Your task to perform on an android device: manage bookmarks in the chrome app Image 0: 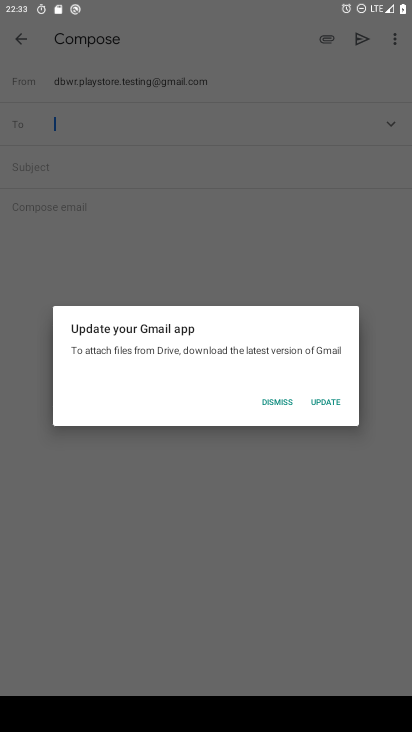
Step 0: press home button
Your task to perform on an android device: manage bookmarks in the chrome app Image 1: 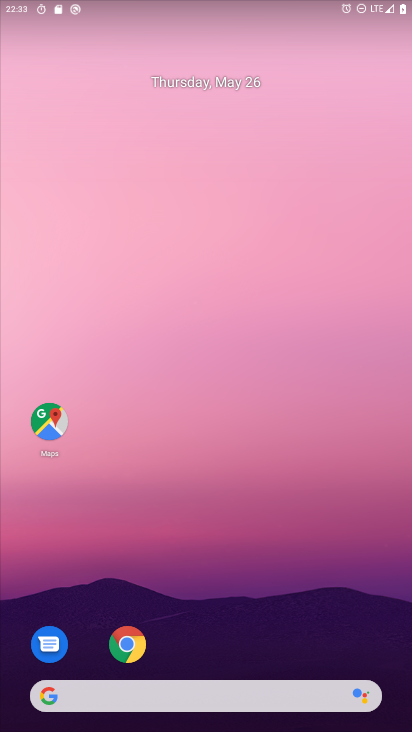
Step 1: drag from (186, 665) to (196, 281)
Your task to perform on an android device: manage bookmarks in the chrome app Image 2: 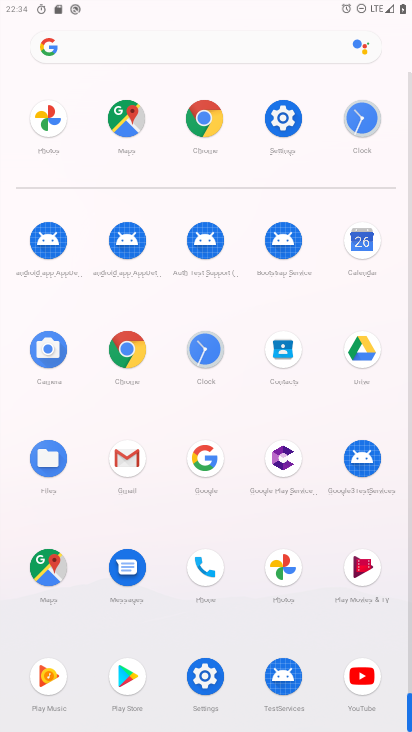
Step 2: click (122, 342)
Your task to perform on an android device: manage bookmarks in the chrome app Image 3: 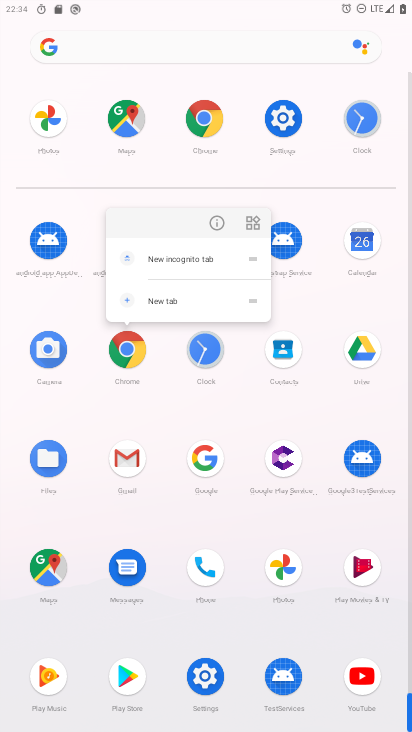
Step 3: click (220, 224)
Your task to perform on an android device: manage bookmarks in the chrome app Image 4: 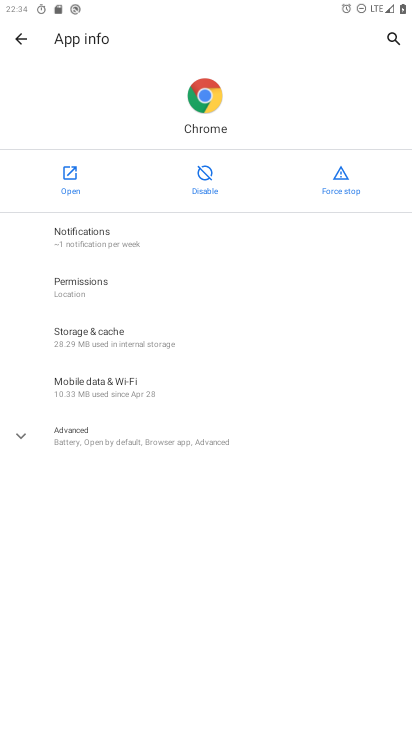
Step 4: click (38, 171)
Your task to perform on an android device: manage bookmarks in the chrome app Image 5: 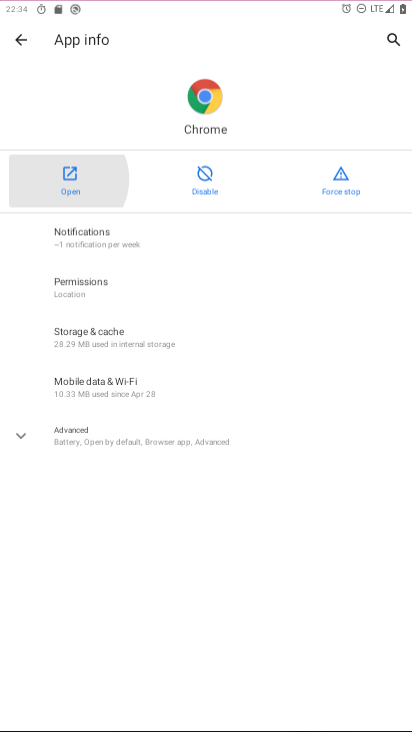
Step 5: click (51, 176)
Your task to perform on an android device: manage bookmarks in the chrome app Image 6: 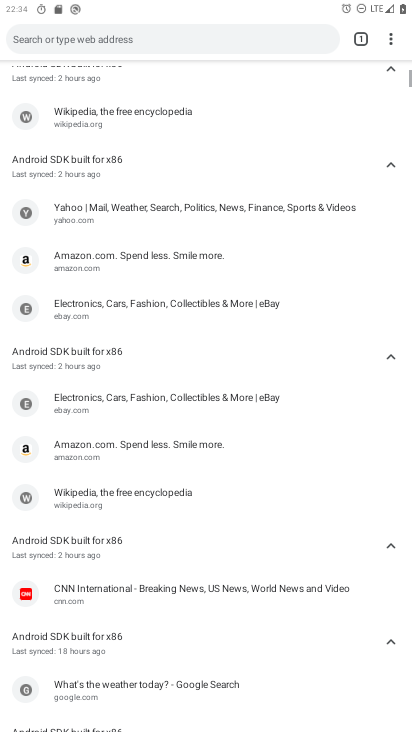
Step 6: drag from (394, 40) to (275, 158)
Your task to perform on an android device: manage bookmarks in the chrome app Image 7: 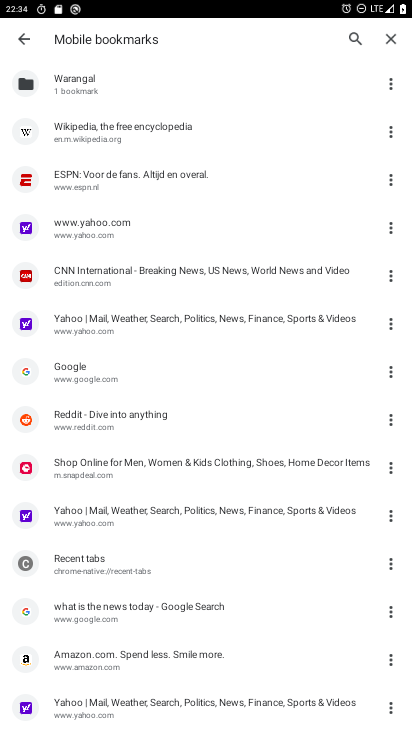
Step 7: drag from (134, 667) to (211, 437)
Your task to perform on an android device: manage bookmarks in the chrome app Image 8: 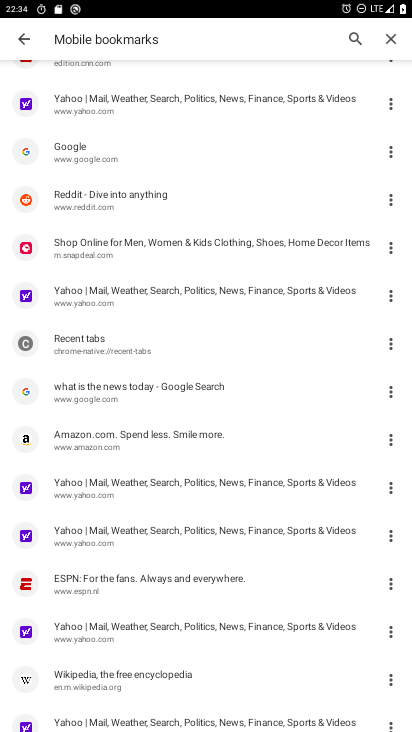
Step 8: drag from (181, 265) to (277, 706)
Your task to perform on an android device: manage bookmarks in the chrome app Image 9: 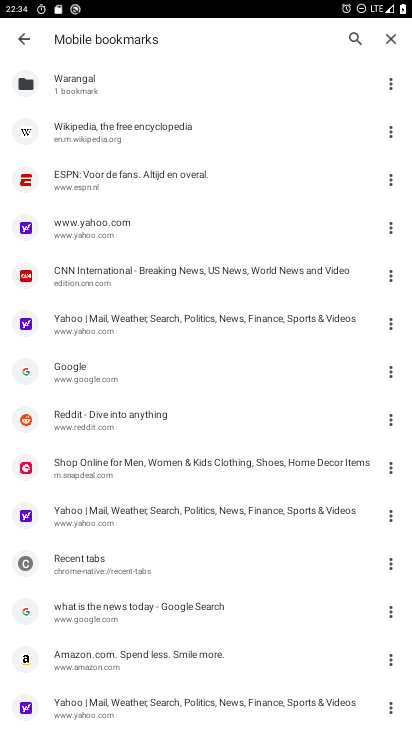
Step 9: click (392, 188)
Your task to perform on an android device: manage bookmarks in the chrome app Image 10: 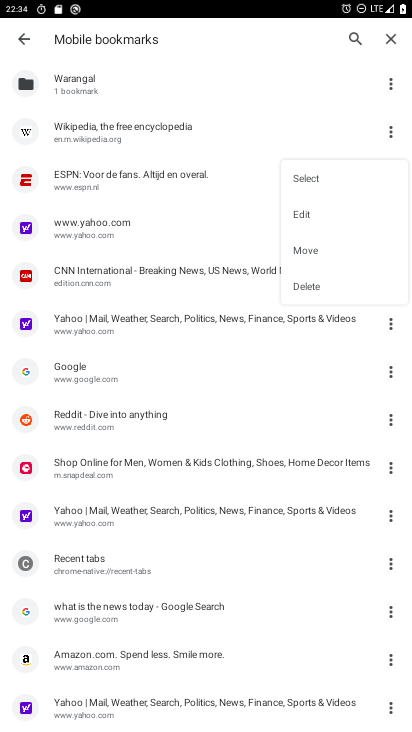
Step 10: click (310, 258)
Your task to perform on an android device: manage bookmarks in the chrome app Image 11: 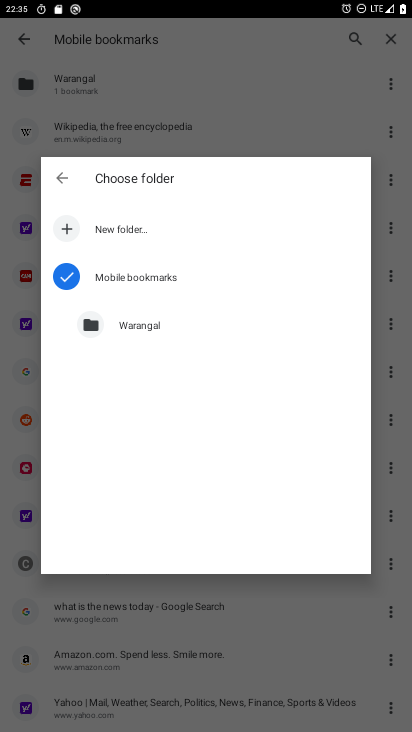
Step 11: click (121, 327)
Your task to perform on an android device: manage bookmarks in the chrome app Image 12: 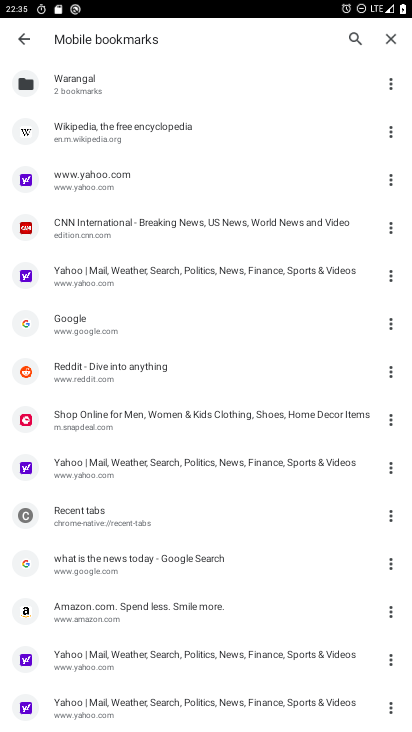
Step 12: task complete